Your task to perform on an android device: Open ESPN.com Image 0: 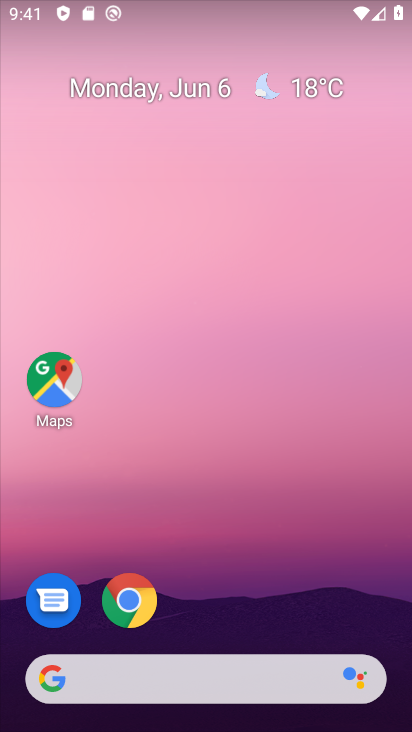
Step 0: drag from (249, 529) to (216, 45)
Your task to perform on an android device: Open ESPN.com Image 1: 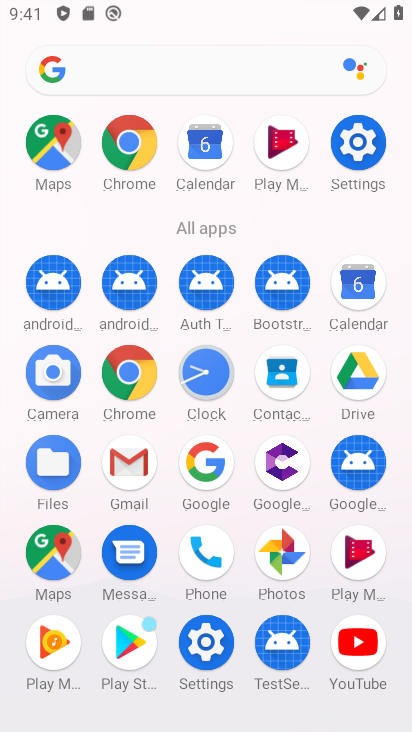
Step 1: click (129, 135)
Your task to perform on an android device: Open ESPN.com Image 2: 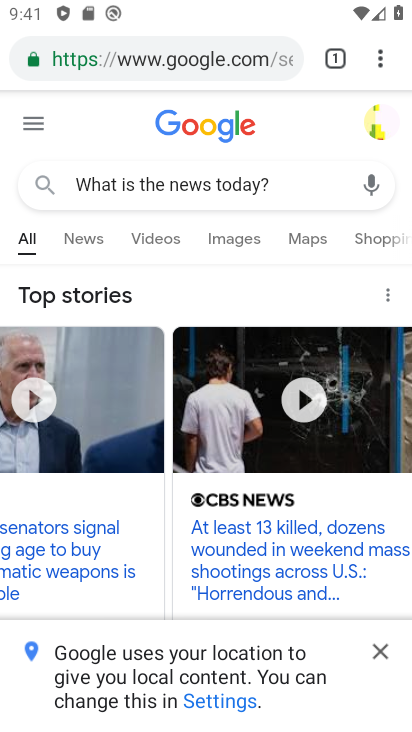
Step 2: click (204, 60)
Your task to perform on an android device: Open ESPN.com Image 3: 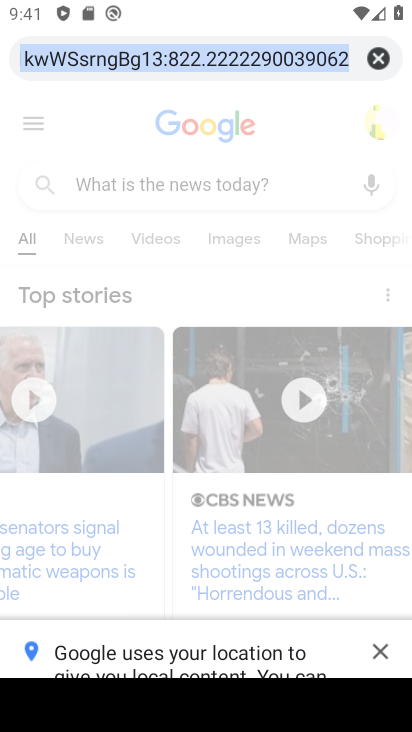
Step 3: click (373, 51)
Your task to perform on an android device: Open ESPN.com Image 4: 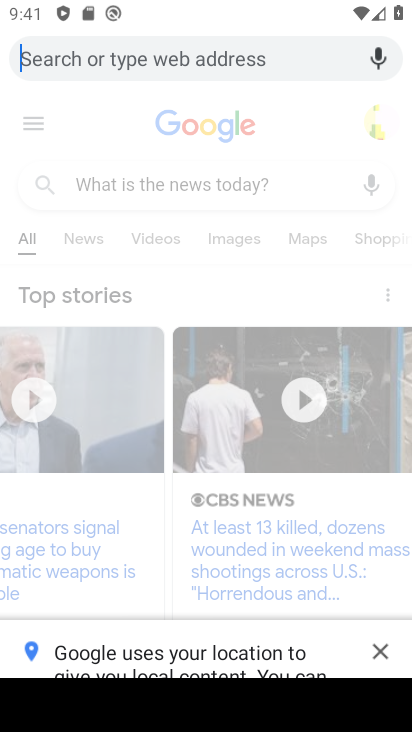
Step 4: type "ESPN.com"
Your task to perform on an android device: Open ESPN.com Image 5: 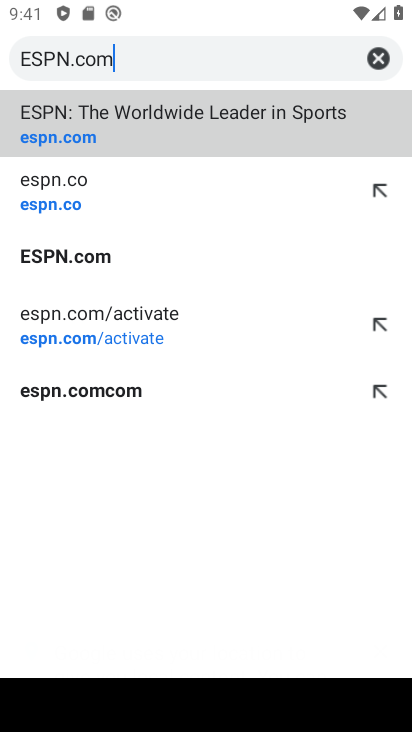
Step 5: type ""
Your task to perform on an android device: Open ESPN.com Image 6: 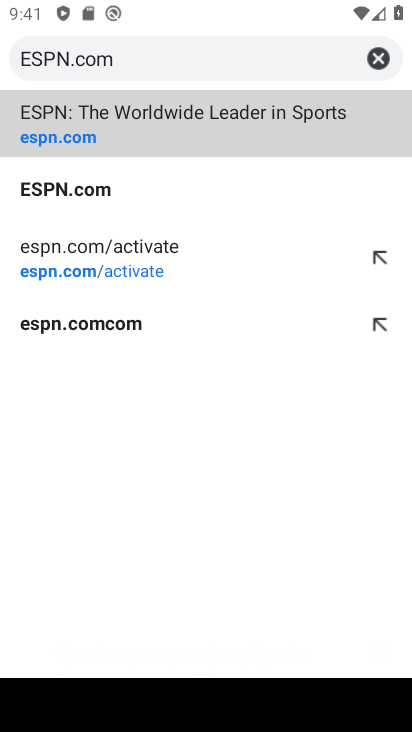
Step 6: click (123, 127)
Your task to perform on an android device: Open ESPN.com Image 7: 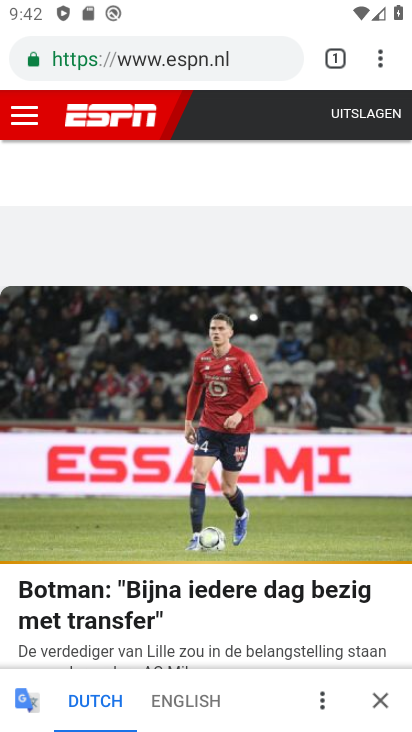
Step 7: task complete